Your task to perform on an android device: turn on javascript in the chrome app Image 0: 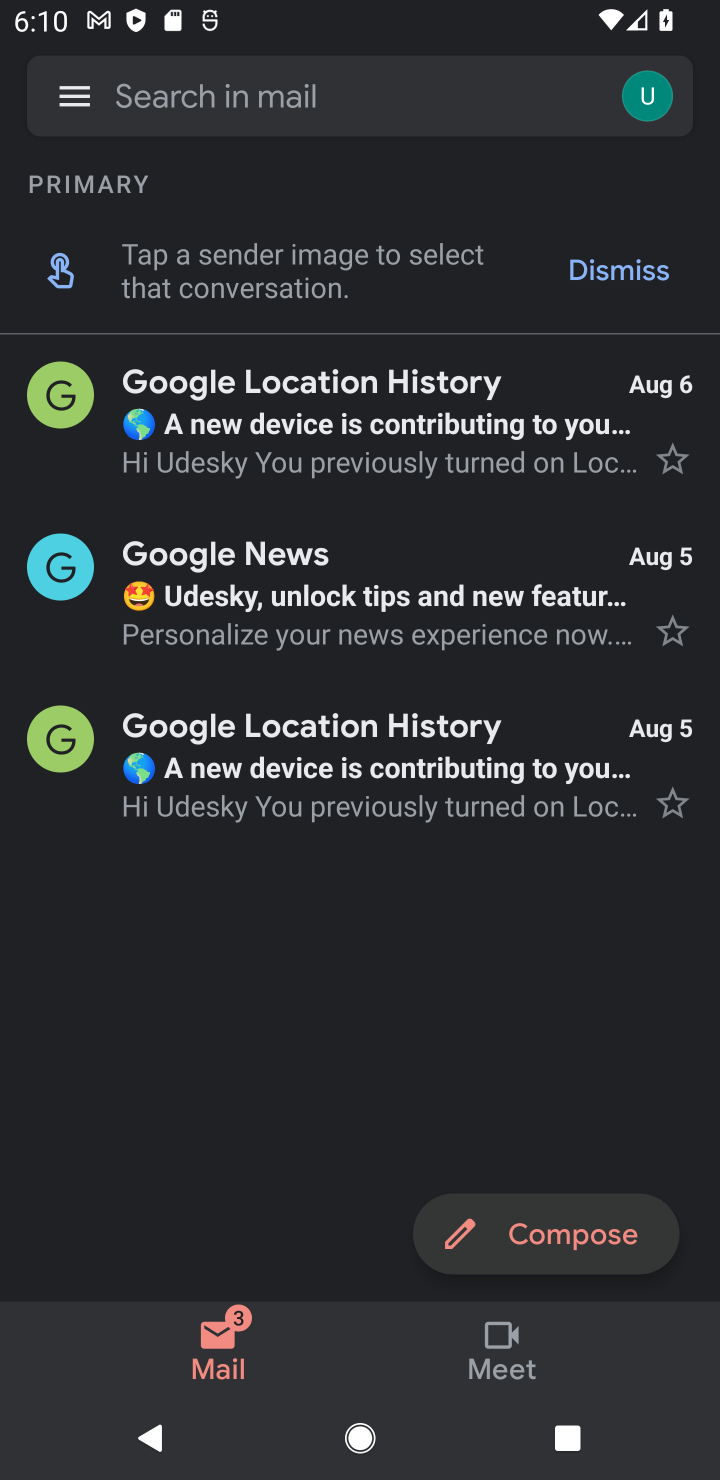
Step 0: press home button
Your task to perform on an android device: turn on javascript in the chrome app Image 1: 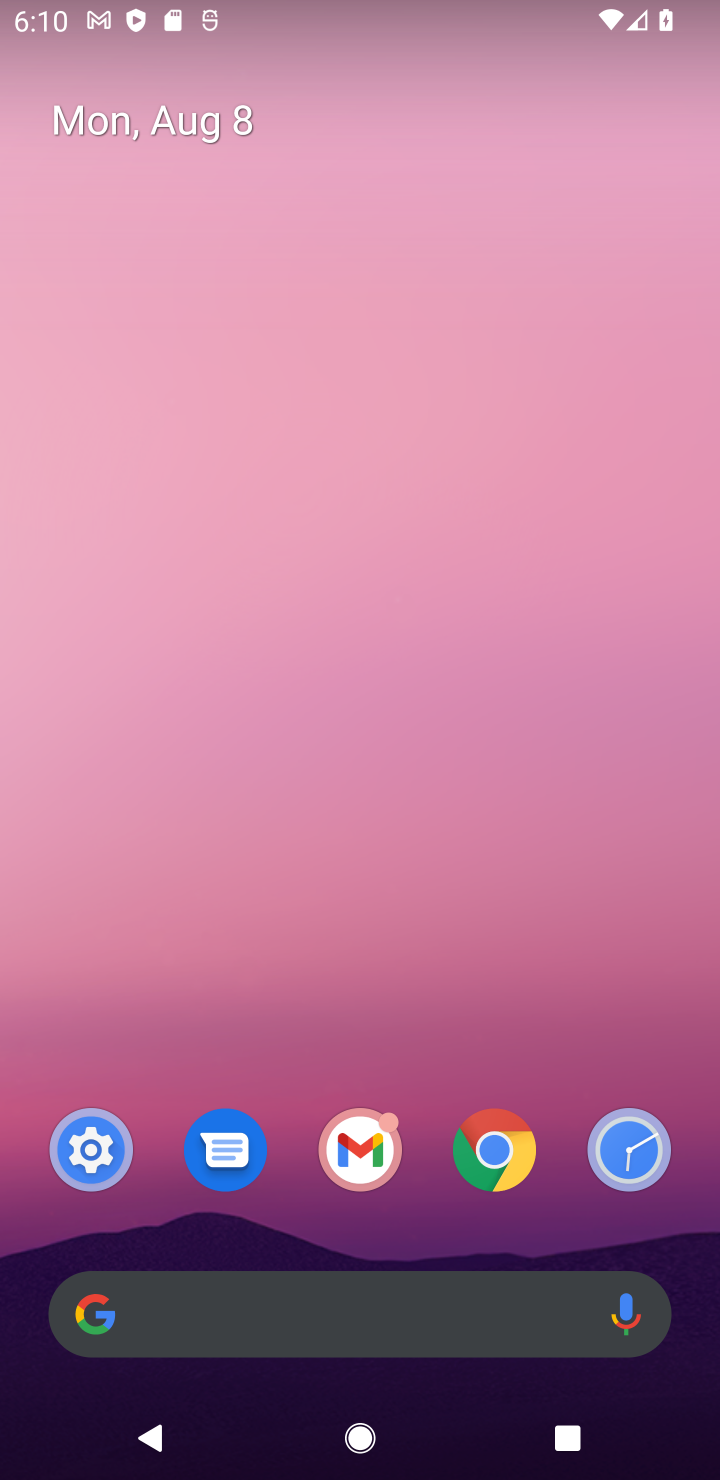
Step 1: click (494, 1202)
Your task to perform on an android device: turn on javascript in the chrome app Image 2: 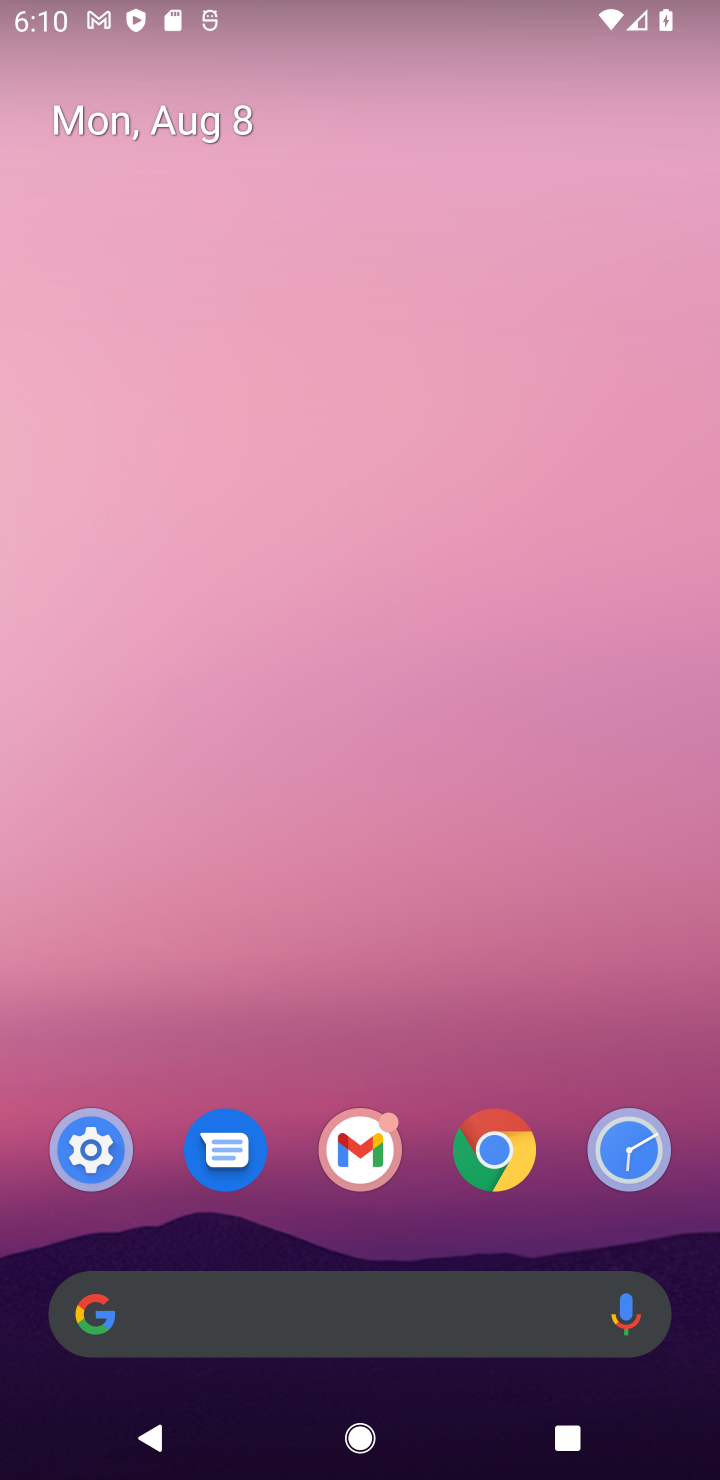
Step 2: click (497, 1159)
Your task to perform on an android device: turn on javascript in the chrome app Image 3: 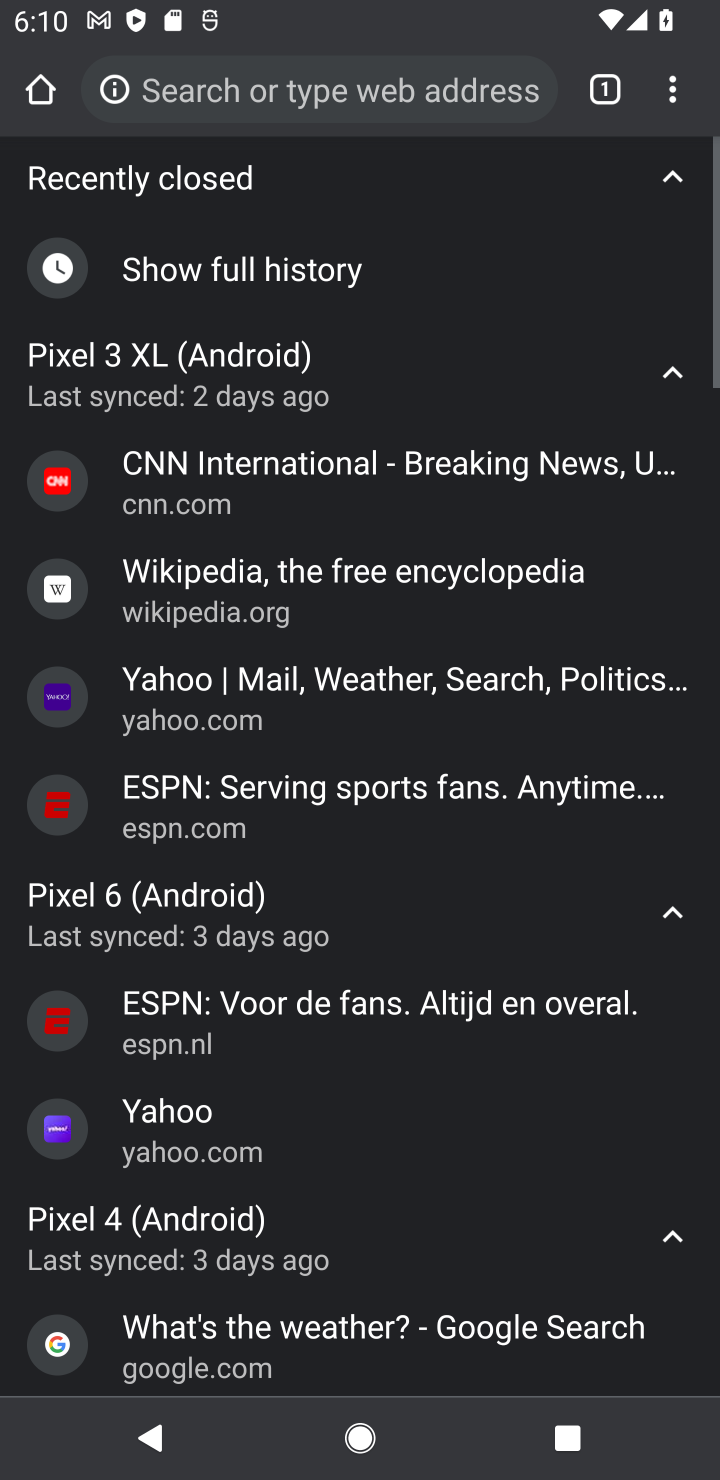
Step 3: click (661, 114)
Your task to perform on an android device: turn on javascript in the chrome app Image 4: 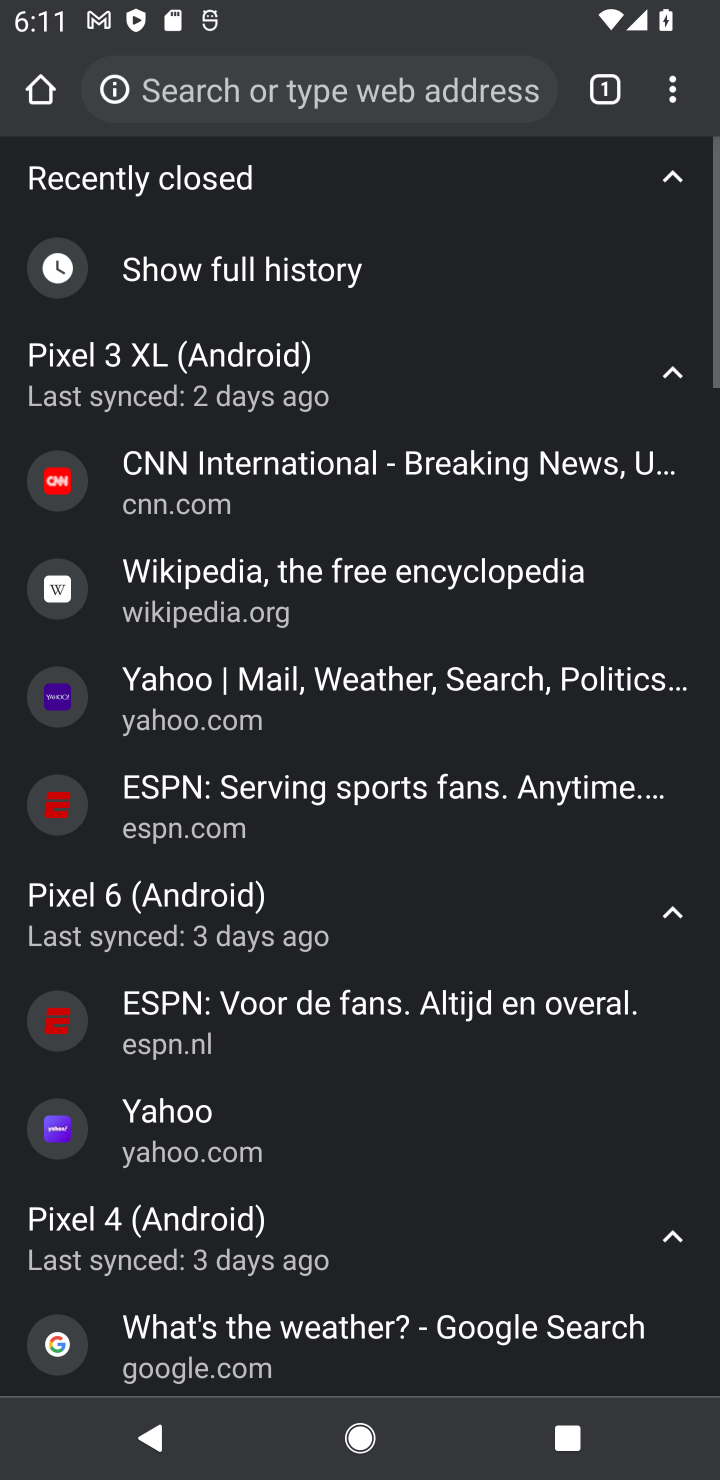
Step 4: click (673, 90)
Your task to perform on an android device: turn on javascript in the chrome app Image 5: 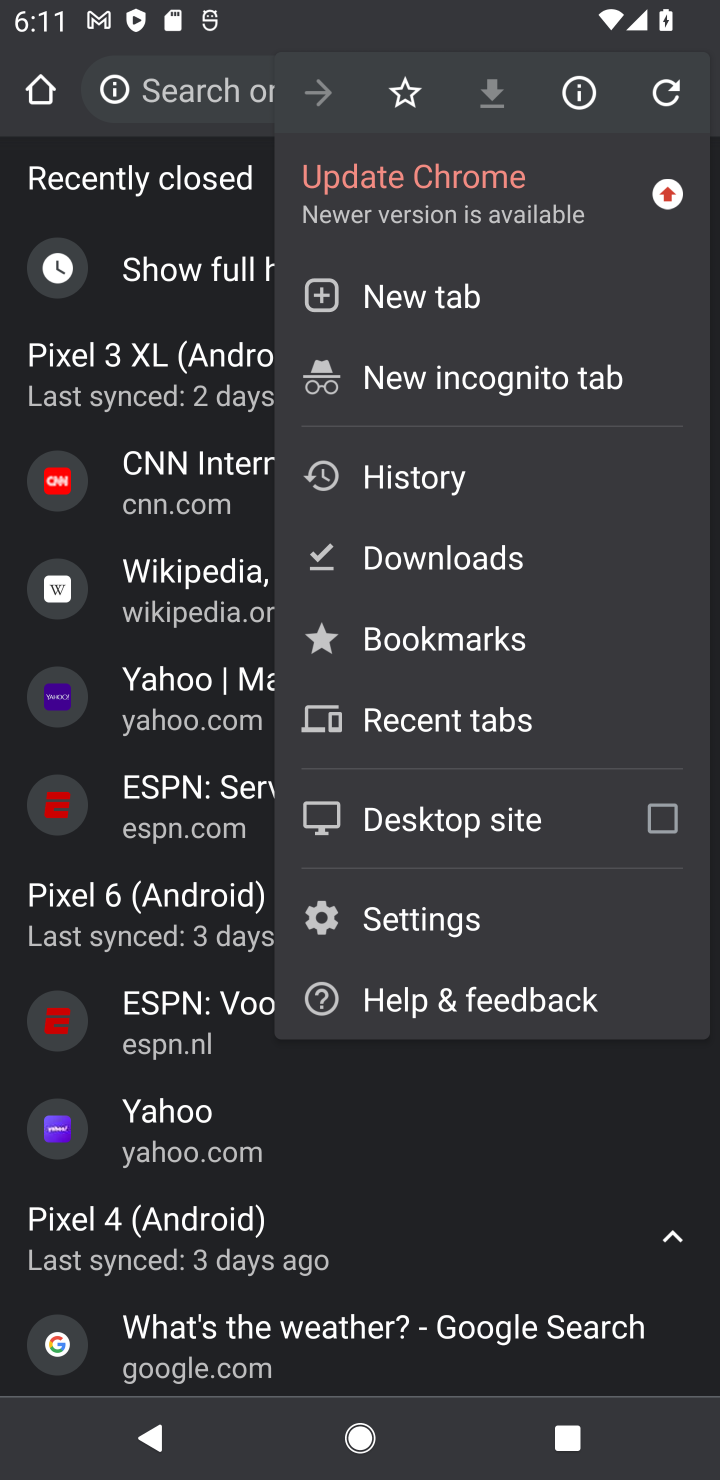
Step 5: click (491, 888)
Your task to perform on an android device: turn on javascript in the chrome app Image 6: 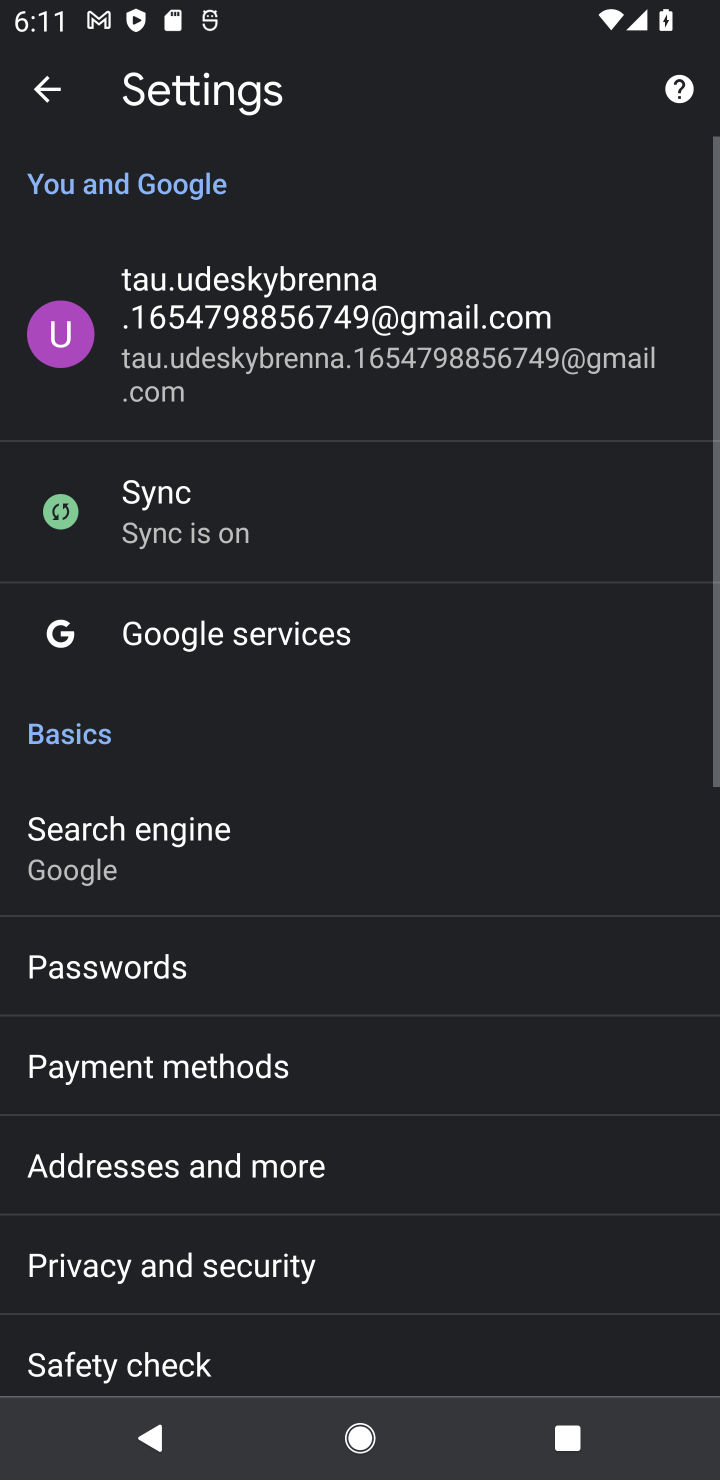
Step 6: task complete